Your task to perform on an android device: toggle wifi Image 0: 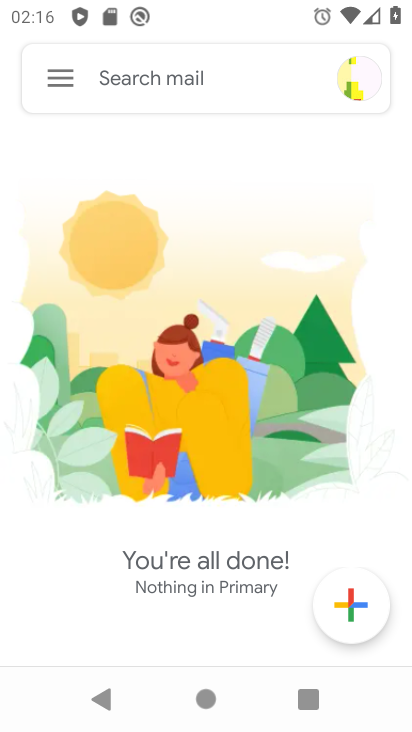
Step 0: press home button
Your task to perform on an android device: toggle wifi Image 1: 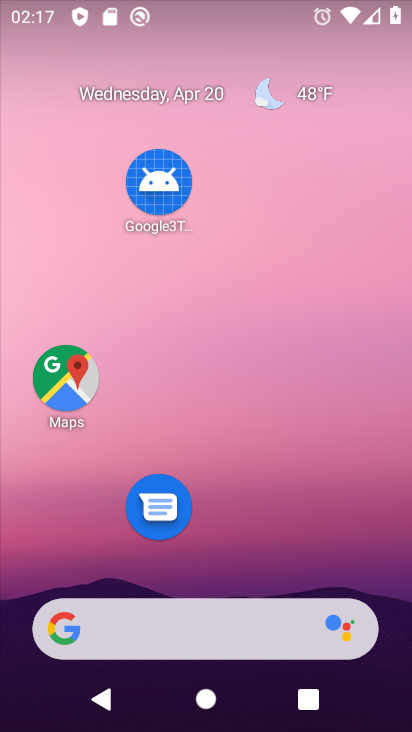
Step 1: drag from (240, 340) to (238, 65)
Your task to perform on an android device: toggle wifi Image 2: 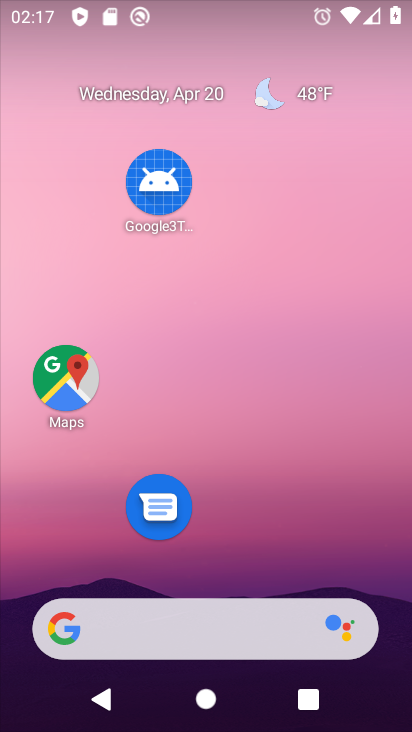
Step 2: drag from (235, 240) to (203, 0)
Your task to perform on an android device: toggle wifi Image 3: 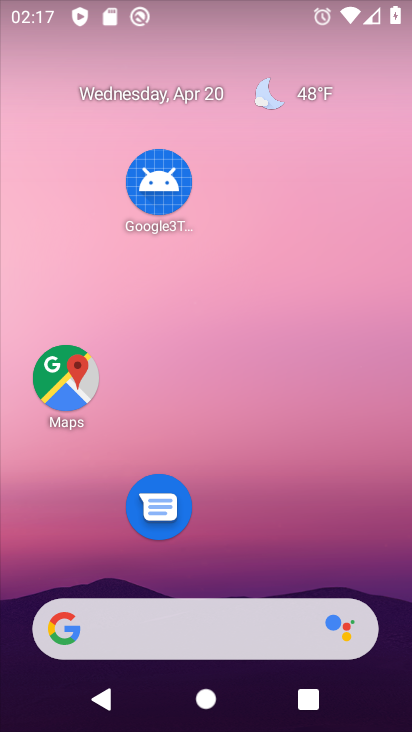
Step 3: drag from (246, 461) to (239, 6)
Your task to perform on an android device: toggle wifi Image 4: 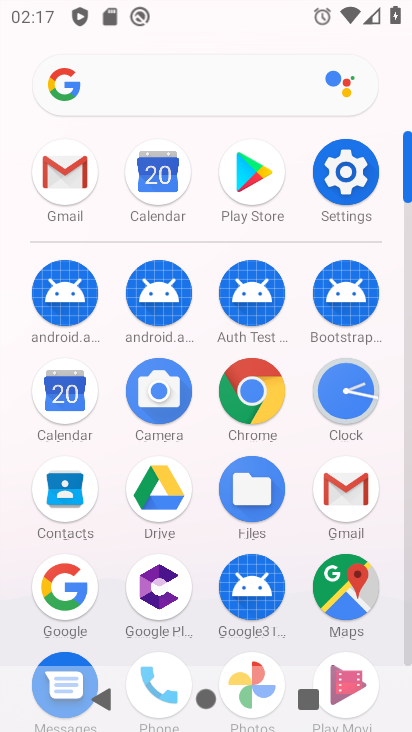
Step 4: click (349, 173)
Your task to perform on an android device: toggle wifi Image 5: 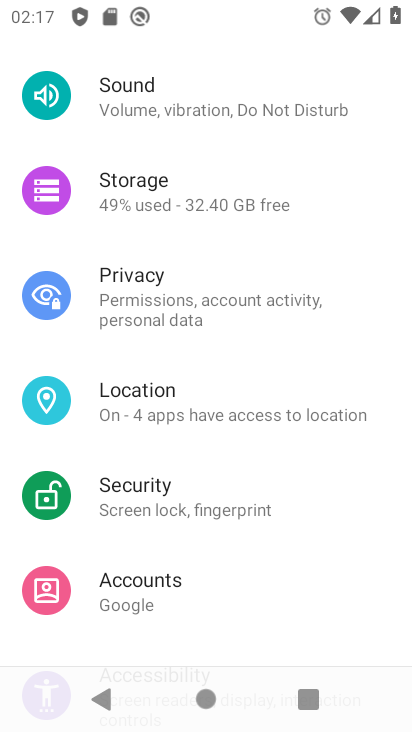
Step 5: drag from (198, 147) to (259, 571)
Your task to perform on an android device: toggle wifi Image 6: 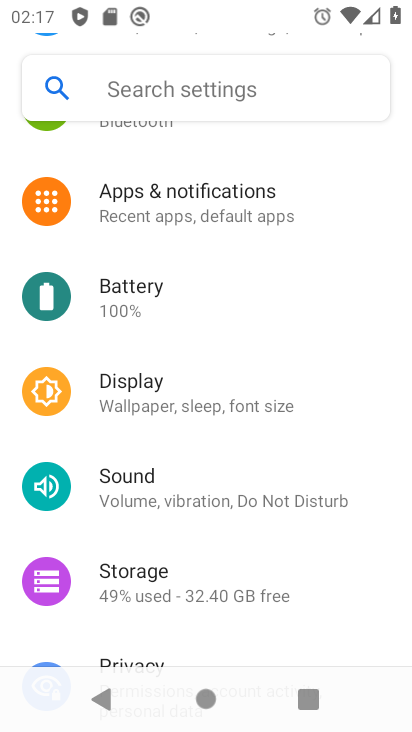
Step 6: drag from (176, 157) to (236, 626)
Your task to perform on an android device: toggle wifi Image 7: 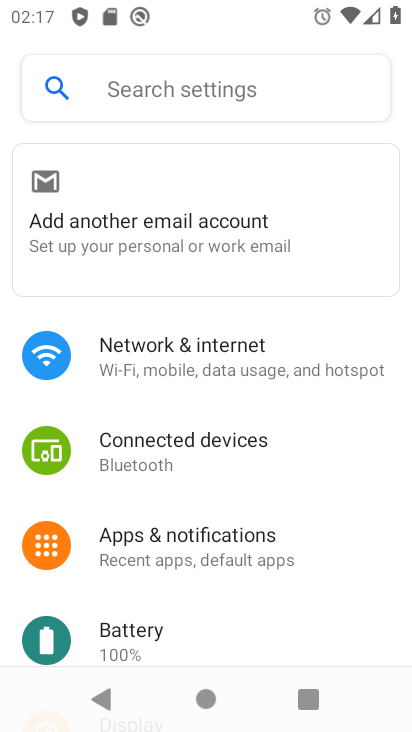
Step 7: click (145, 357)
Your task to perform on an android device: toggle wifi Image 8: 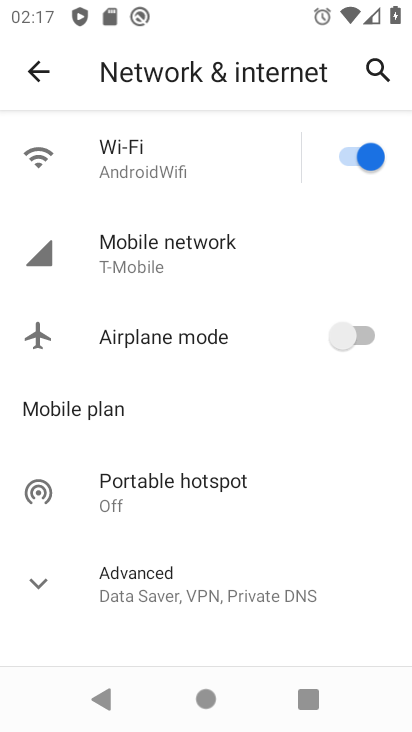
Step 8: click (375, 156)
Your task to perform on an android device: toggle wifi Image 9: 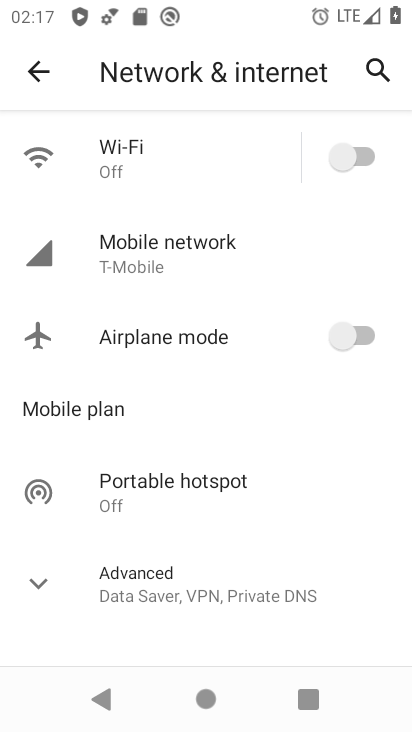
Step 9: task complete